Your task to perform on an android device: Search for Mexican restaurants on Maps Image 0: 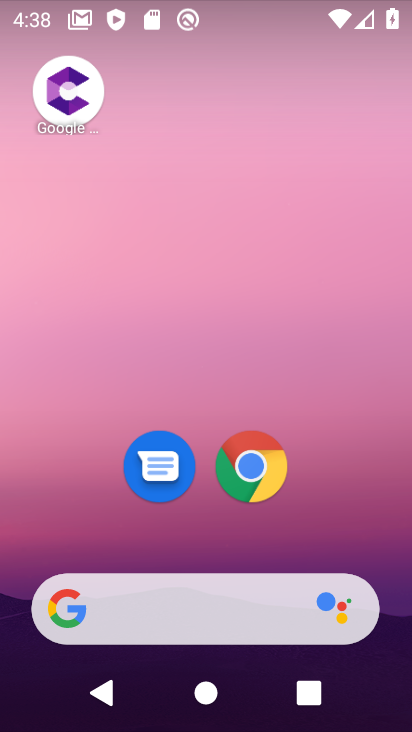
Step 0: drag from (197, 545) to (403, 530)
Your task to perform on an android device: Search for Mexican restaurants on Maps Image 1: 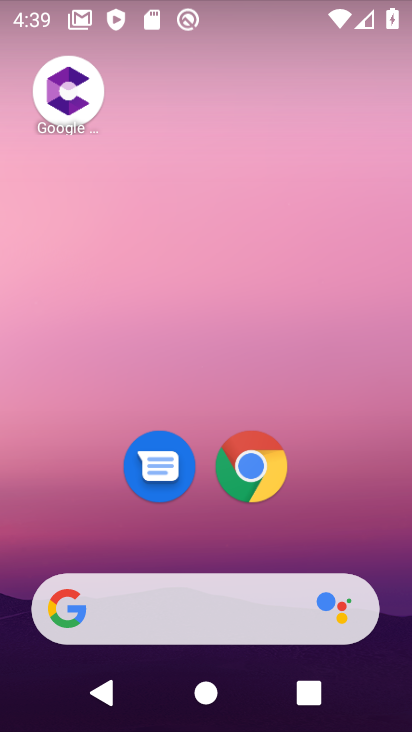
Step 1: drag from (201, 560) to (88, 3)
Your task to perform on an android device: Search for Mexican restaurants on Maps Image 2: 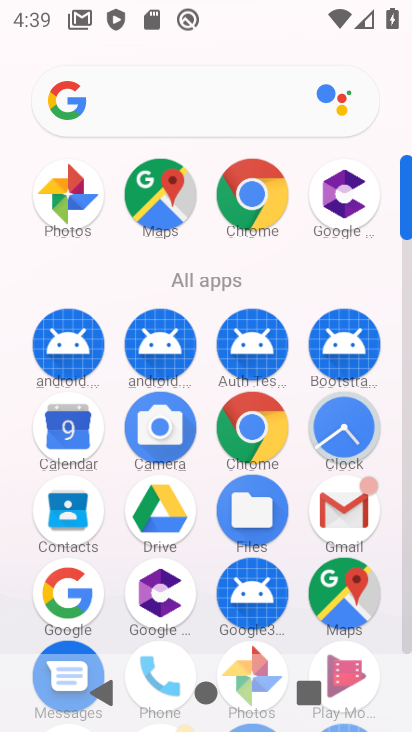
Step 2: click (351, 583)
Your task to perform on an android device: Search for Mexican restaurants on Maps Image 3: 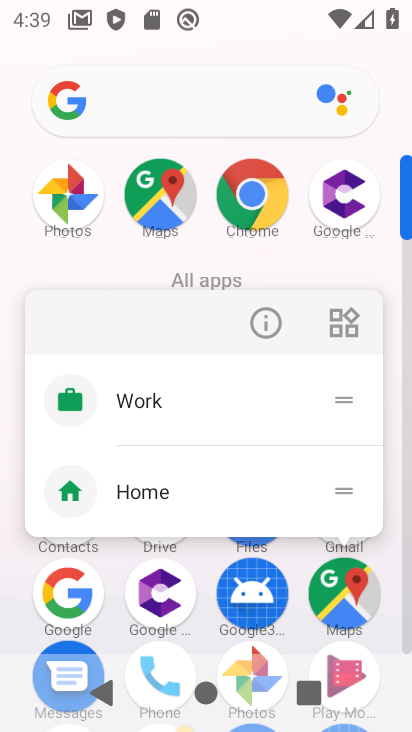
Step 3: click (253, 333)
Your task to perform on an android device: Search for Mexican restaurants on Maps Image 4: 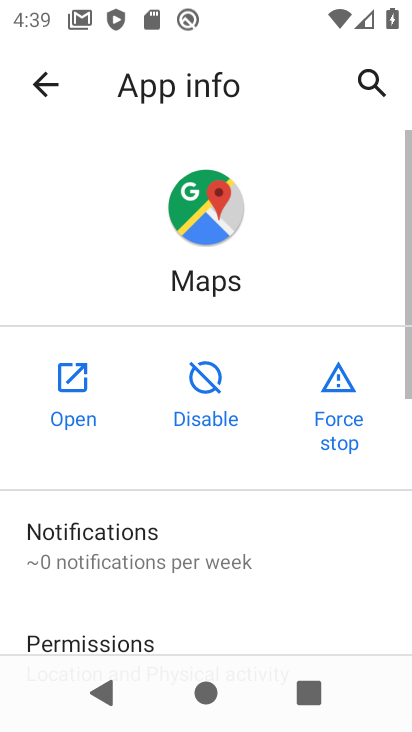
Step 4: click (59, 386)
Your task to perform on an android device: Search for Mexican restaurants on Maps Image 5: 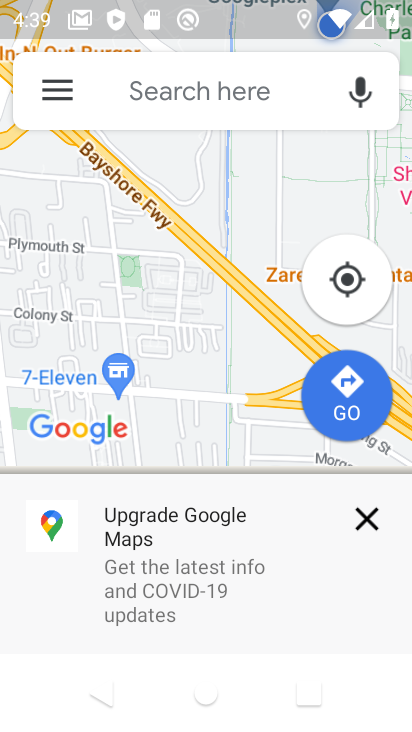
Step 5: click (219, 97)
Your task to perform on an android device: Search for Mexican restaurants on Maps Image 6: 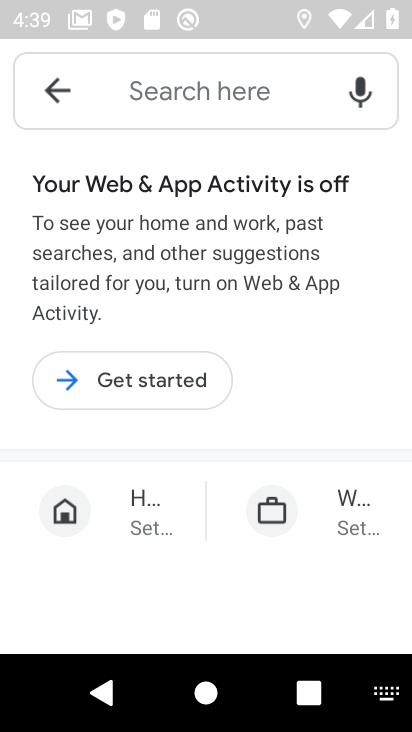
Step 6: click (191, 82)
Your task to perform on an android device: Search for Mexican restaurants on Maps Image 7: 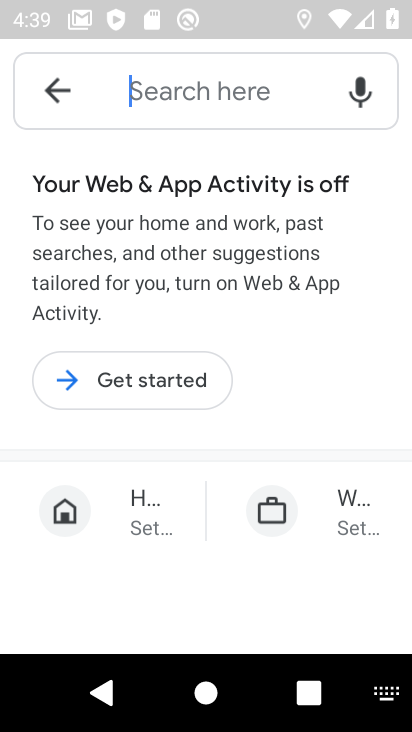
Step 7: type "Mexican restaurants"
Your task to perform on an android device: Search for Mexican restaurants on Maps Image 8: 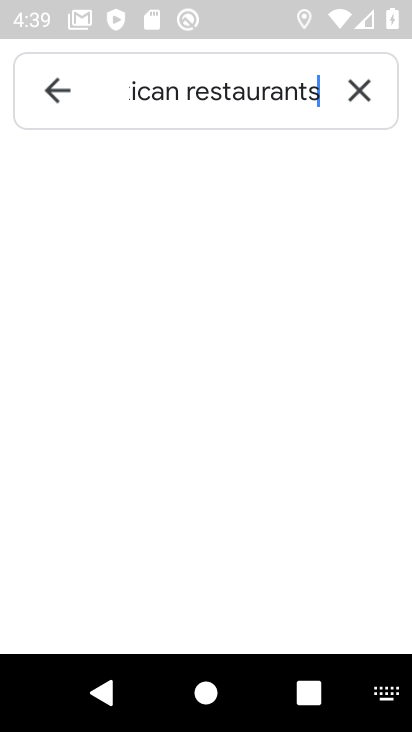
Step 8: type ""
Your task to perform on an android device: Search for Mexican restaurants on Maps Image 9: 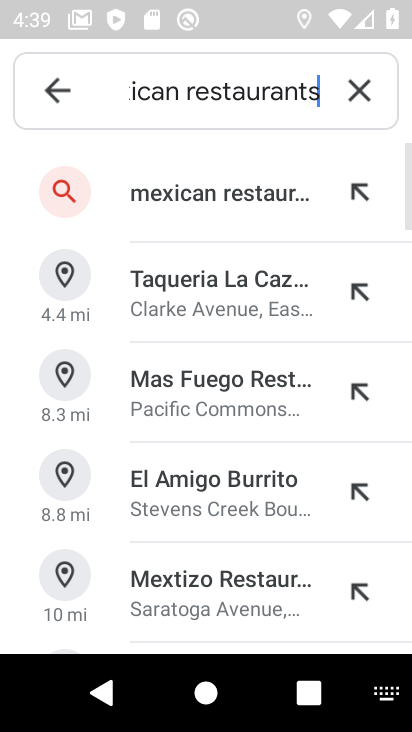
Step 9: click (182, 216)
Your task to perform on an android device: Search for Mexican restaurants on Maps Image 10: 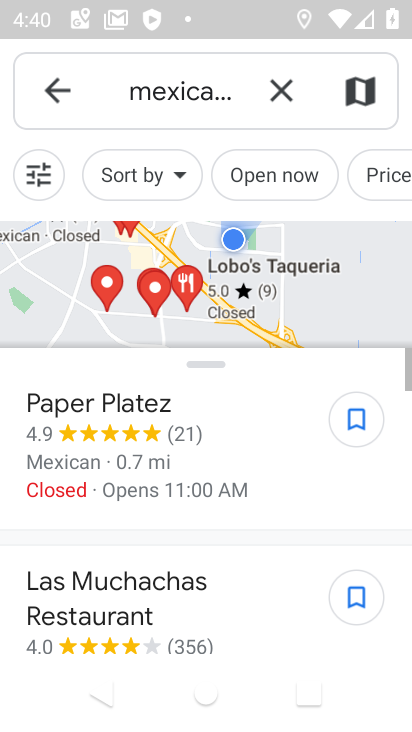
Step 10: task complete